Your task to perform on an android device: turn on bluetooth scan Image 0: 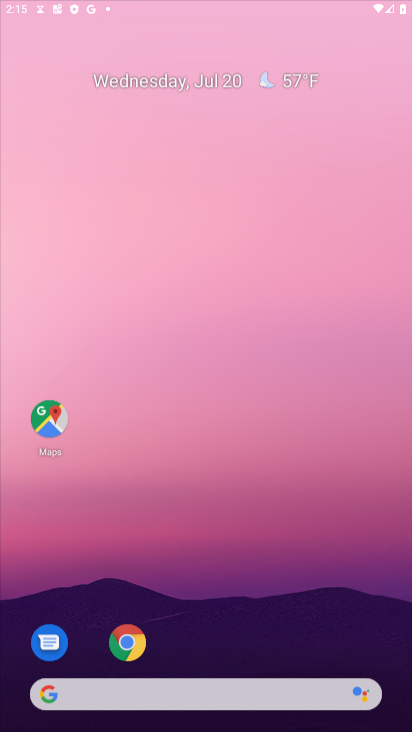
Step 0: press home button
Your task to perform on an android device: turn on bluetooth scan Image 1: 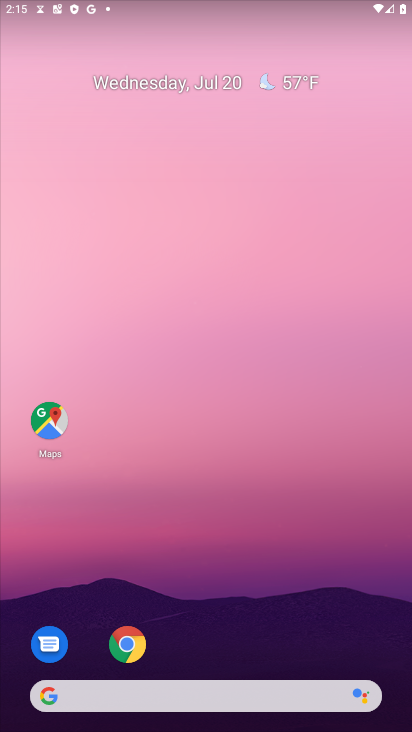
Step 1: drag from (271, 597) to (296, 15)
Your task to perform on an android device: turn on bluetooth scan Image 2: 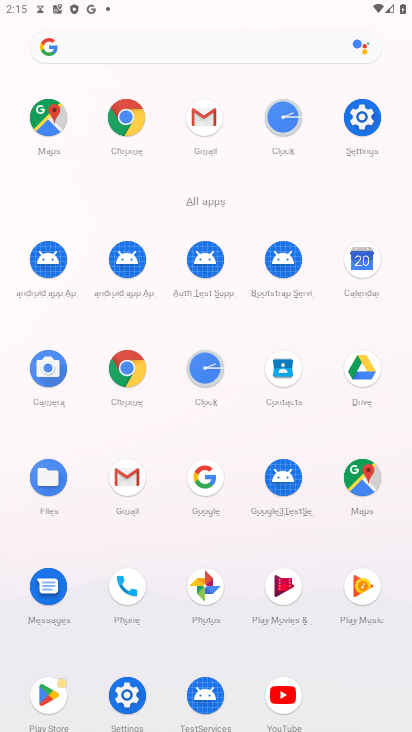
Step 2: click (367, 116)
Your task to perform on an android device: turn on bluetooth scan Image 3: 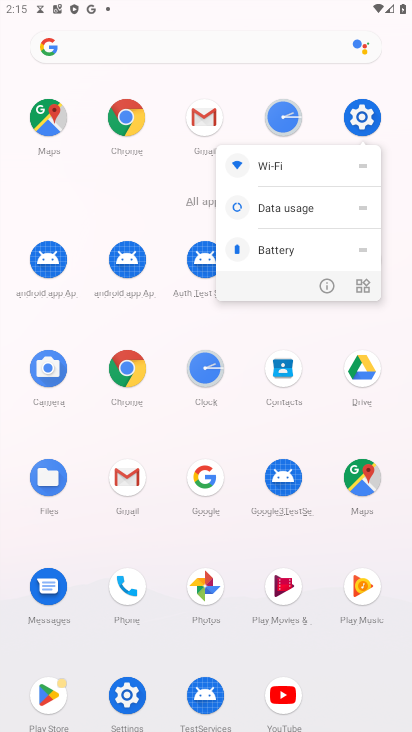
Step 3: click (367, 116)
Your task to perform on an android device: turn on bluetooth scan Image 4: 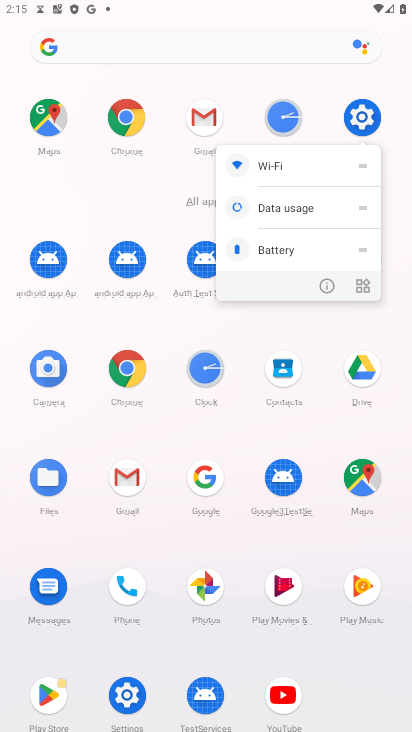
Step 4: click (367, 116)
Your task to perform on an android device: turn on bluetooth scan Image 5: 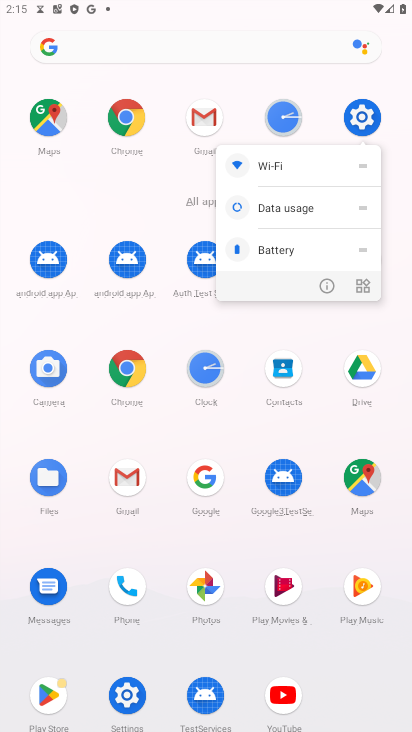
Step 5: click (367, 116)
Your task to perform on an android device: turn on bluetooth scan Image 6: 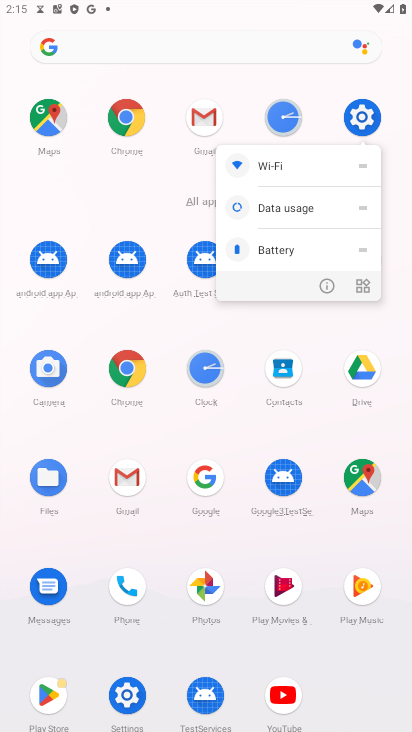
Step 6: click (348, 115)
Your task to perform on an android device: turn on bluetooth scan Image 7: 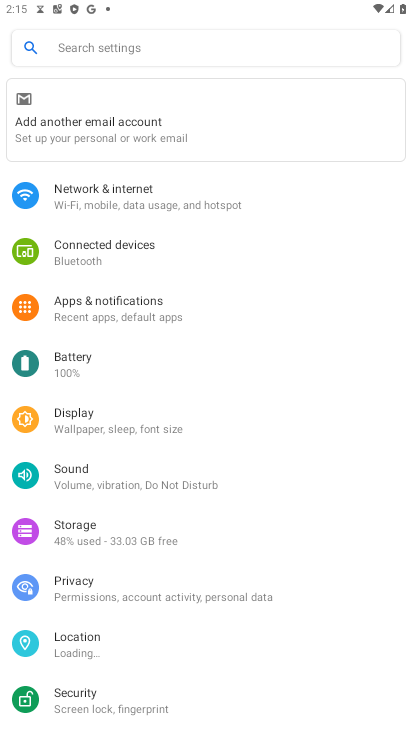
Step 7: click (76, 644)
Your task to perform on an android device: turn on bluetooth scan Image 8: 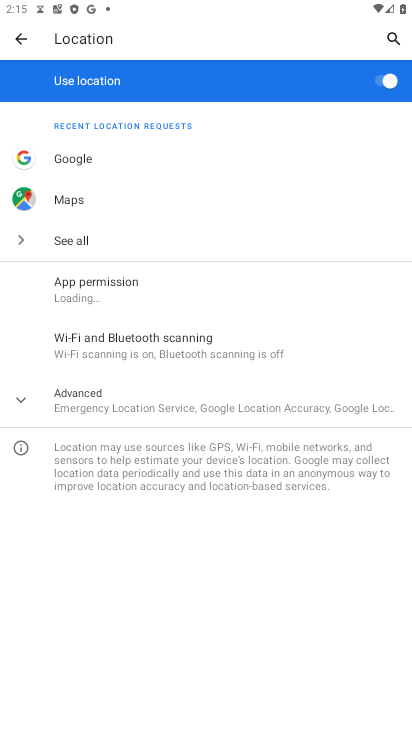
Step 8: click (105, 342)
Your task to perform on an android device: turn on bluetooth scan Image 9: 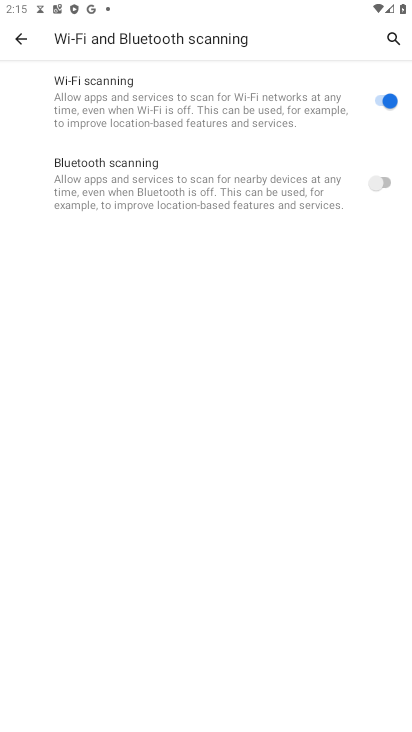
Step 9: click (377, 176)
Your task to perform on an android device: turn on bluetooth scan Image 10: 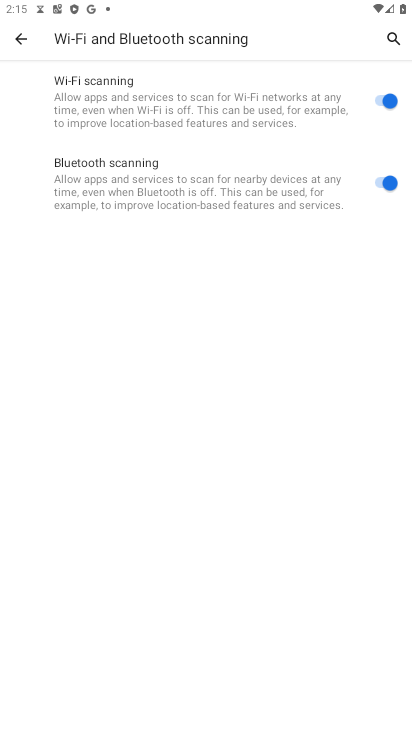
Step 10: task complete